Your task to perform on an android device: allow notifications from all sites in the chrome app Image 0: 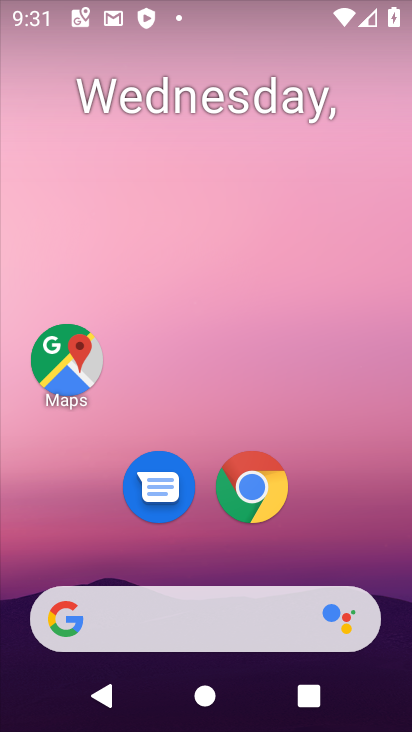
Step 0: click (267, 517)
Your task to perform on an android device: allow notifications from all sites in the chrome app Image 1: 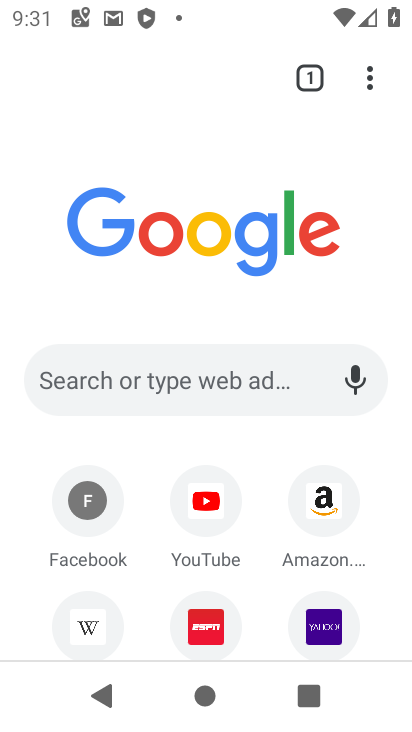
Step 1: drag from (365, 77) to (143, 541)
Your task to perform on an android device: allow notifications from all sites in the chrome app Image 2: 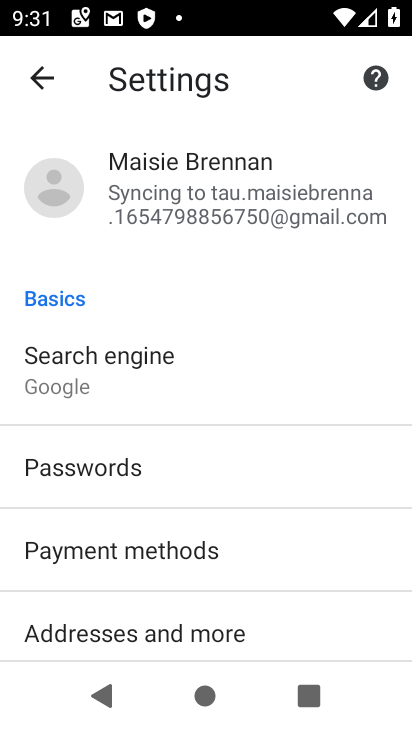
Step 2: drag from (184, 624) to (292, 130)
Your task to perform on an android device: allow notifications from all sites in the chrome app Image 3: 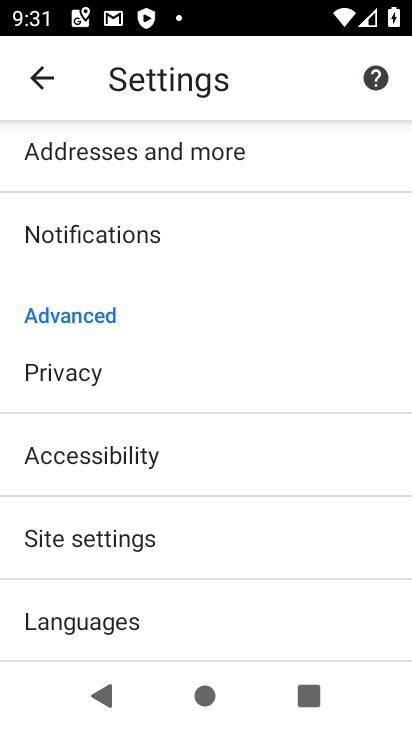
Step 3: click (47, 223)
Your task to perform on an android device: allow notifications from all sites in the chrome app Image 4: 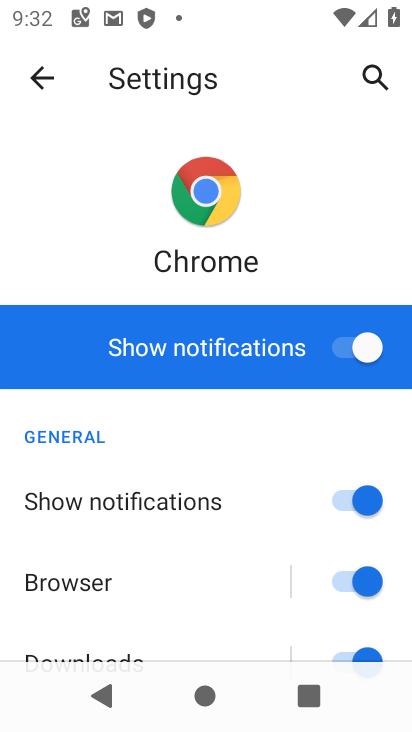
Step 4: task complete